Your task to perform on an android device: Open location settings Image 0: 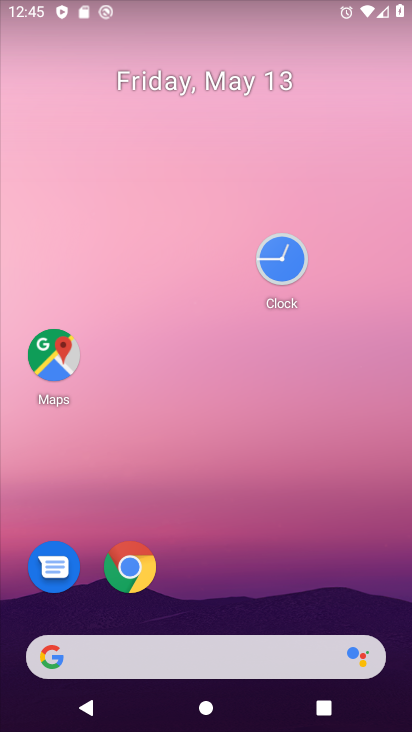
Step 0: drag from (317, 589) to (260, 94)
Your task to perform on an android device: Open location settings Image 1: 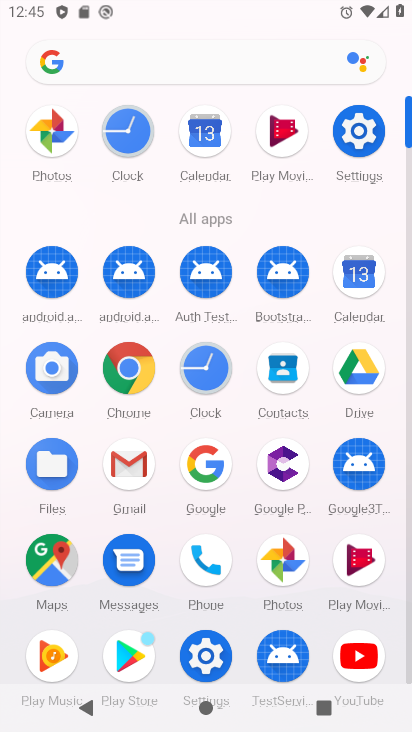
Step 1: click (225, 658)
Your task to perform on an android device: Open location settings Image 2: 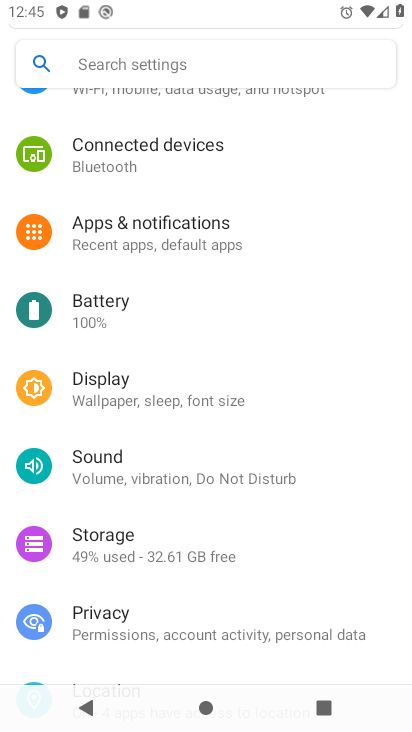
Step 2: drag from (211, 601) to (288, 269)
Your task to perform on an android device: Open location settings Image 3: 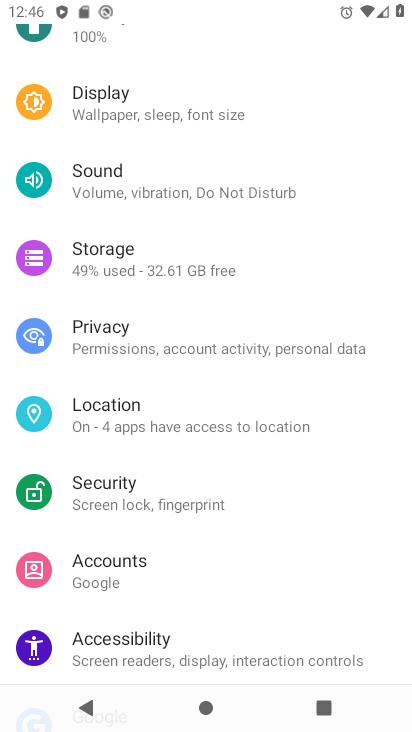
Step 3: click (230, 438)
Your task to perform on an android device: Open location settings Image 4: 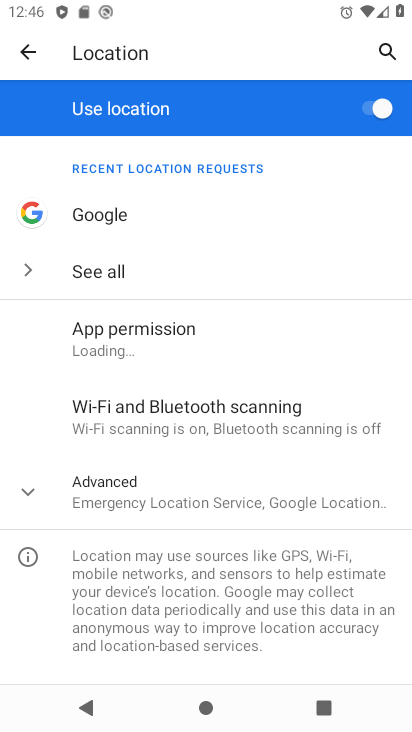
Step 4: task complete